Your task to perform on an android device: all mails in gmail Image 0: 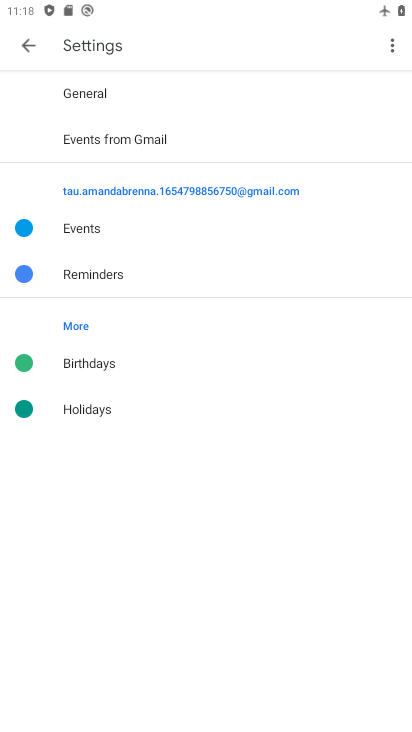
Step 0: press home button
Your task to perform on an android device: all mails in gmail Image 1: 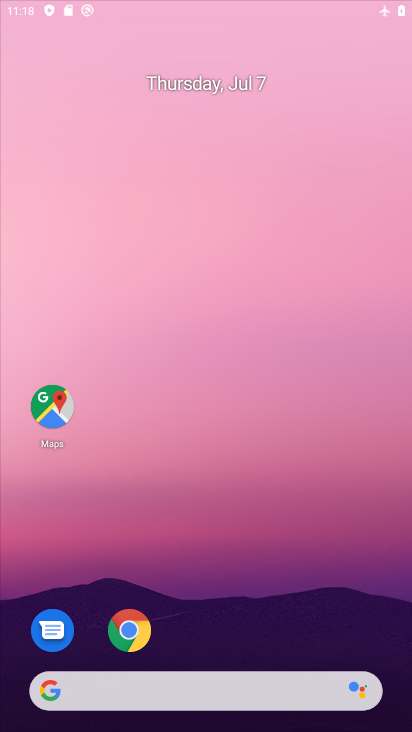
Step 1: drag from (395, 665) to (183, 66)
Your task to perform on an android device: all mails in gmail Image 2: 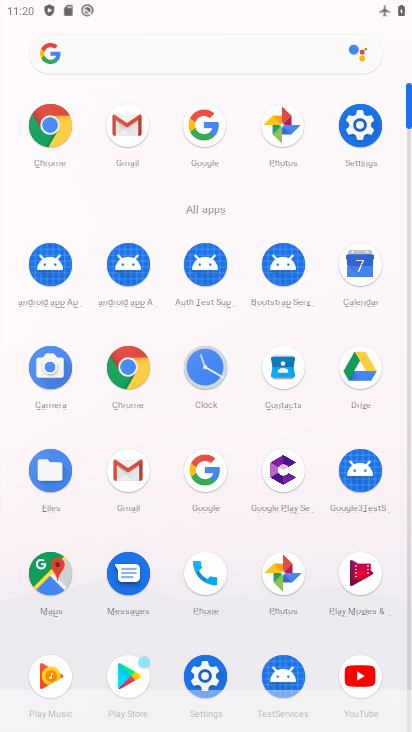
Step 2: click (129, 125)
Your task to perform on an android device: all mails in gmail Image 3: 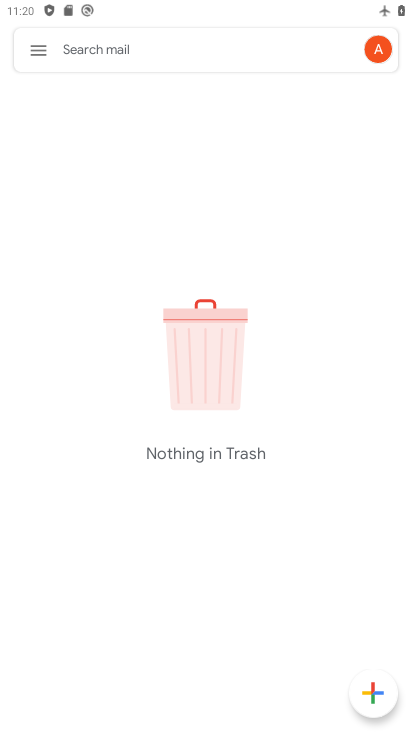
Step 3: click (17, 43)
Your task to perform on an android device: all mails in gmail Image 4: 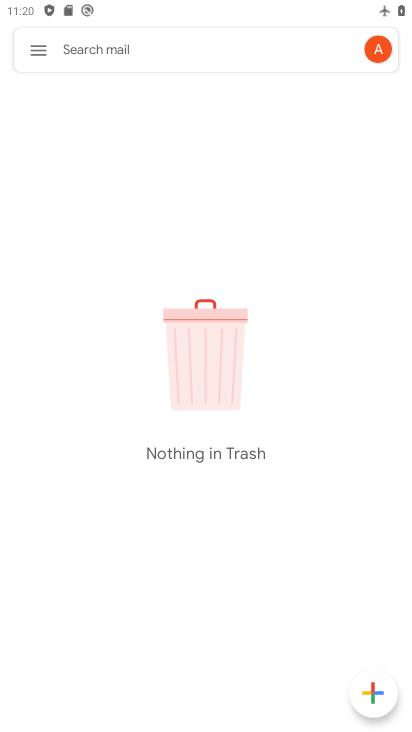
Step 4: click (40, 45)
Your task to perform on an android device: all mails in gmail Image 5: 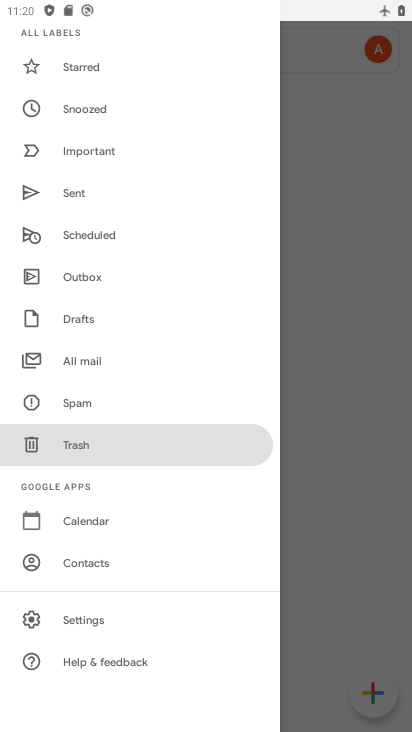
Step 5: click (97, 363)
Your task to perform on an android device: all mails in gmail Image 6: 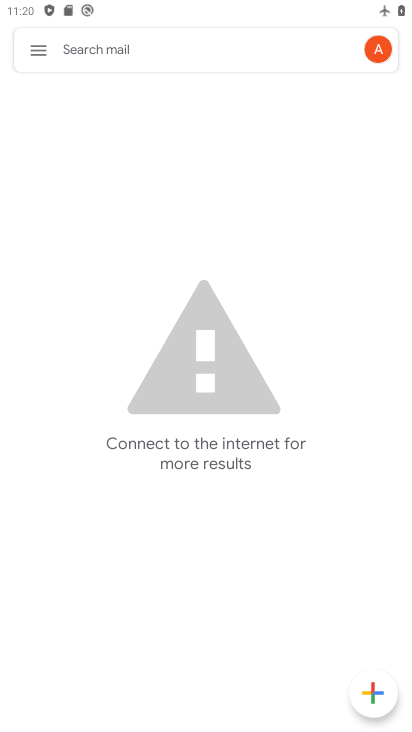
Step 6: task complete